Your task to perform on an android device: turn on improve location accuracy Image 0: 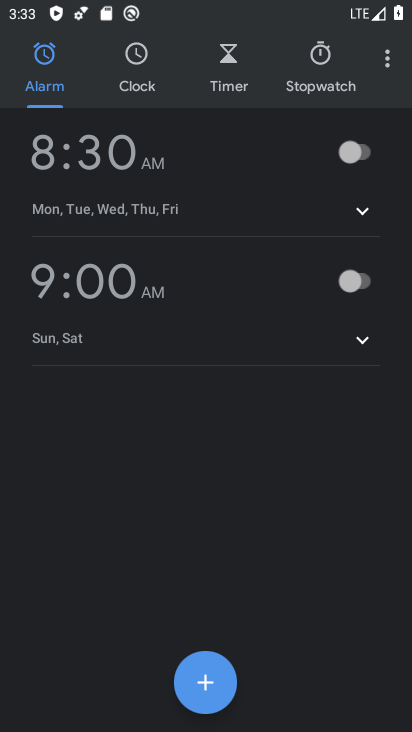
Step 0: press home button
Your task to perform on an android device: turn on improve location accuracy Image 1: 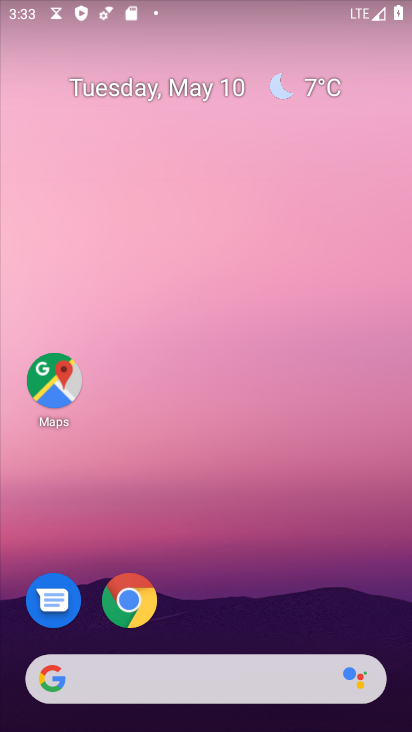
Step 1: drag from (252, 552) to (242, 184)
Your task to perform on an android device: turn on improve location accuracy Image 2: 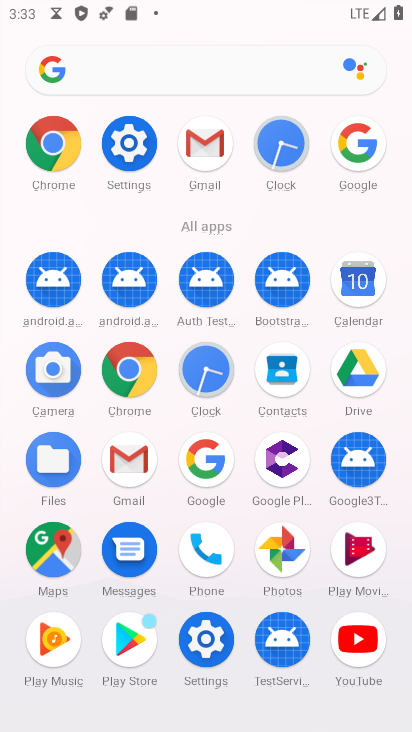
Step 2: click (141, 166)
Your task to perform on an android device: turn on improve location accuracy Image 3: 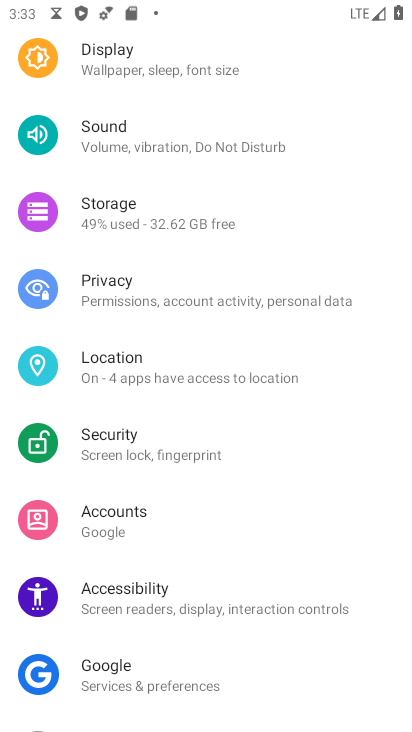
Step 3: drag from (155, 591) to (118, 354)
Your task to perform on an android device: turn on improve location accuracy Image 4: 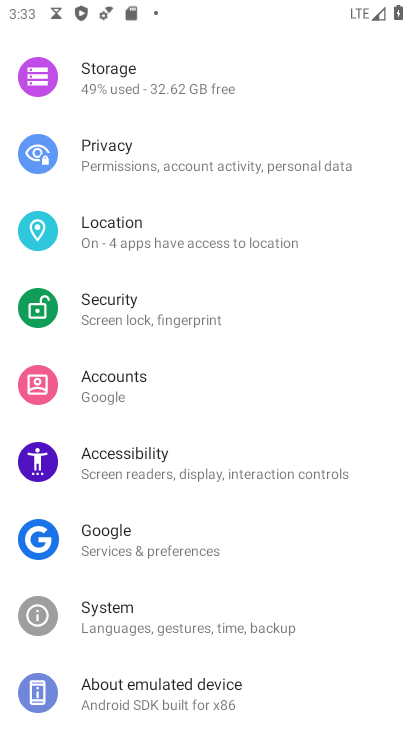
Step 4: drag from (125, 336) to (125, 602)
Your task to perform on an android device: turn on improve location accuracy Image 5: 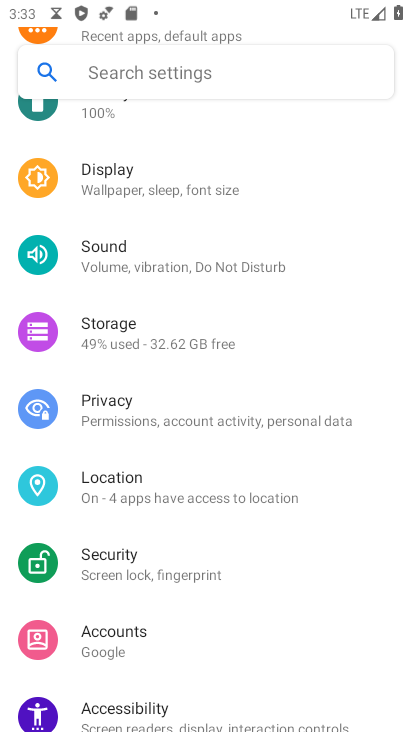
Step 5: click (137, 477)
Your task to perform on an android device: turn on improve location accuracy Image 6: 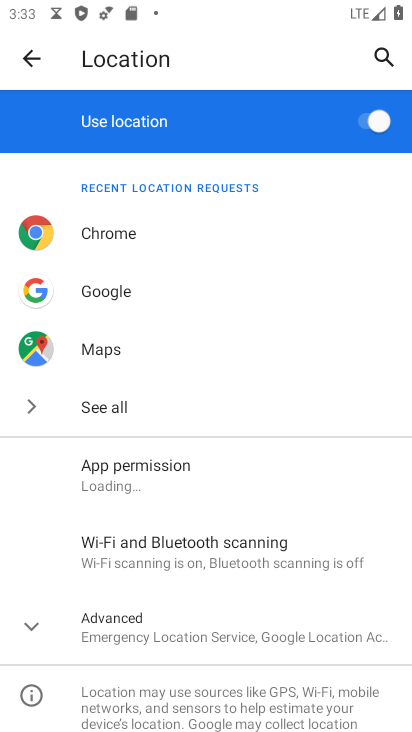
Step 6: drag from (93, 576) to (93, 251)
Your task to perform on an android device: turn on improve location accuracy Image 7: 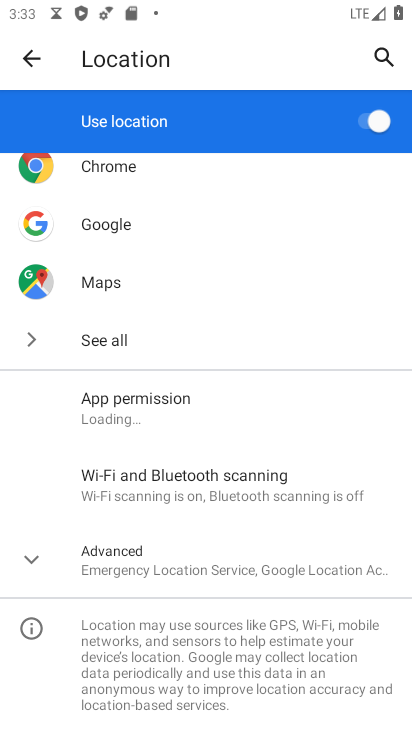
Step 7: drag from (82, 553) to (75, 251)
Your task to perform on an android device: turn on improve location accuracy Image 8: 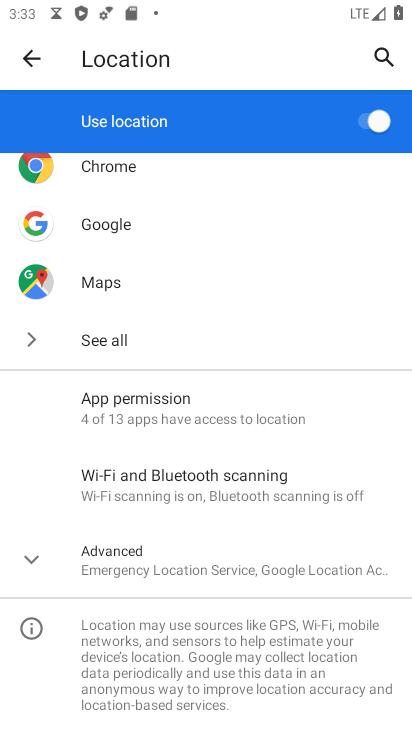
Step 8: drag from (119, 267) to (101, 542)
Your task to perform on an android device: turn on improve location accuracy Image 9: 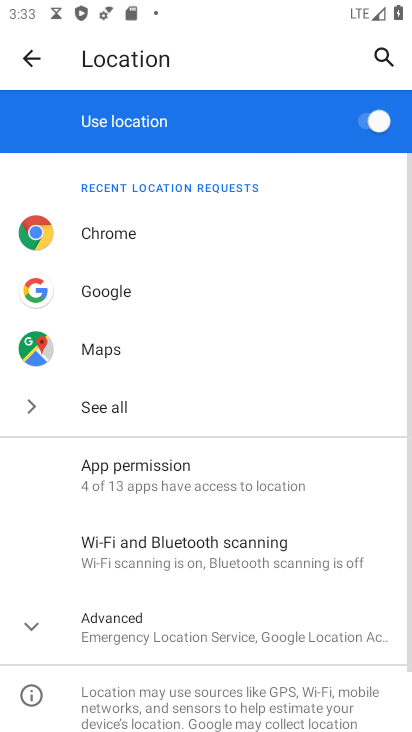
Step 9: drag from (105, 331) to (67, 564)
Your task to perform on an android device: turn on improve location accuracy Image 10: 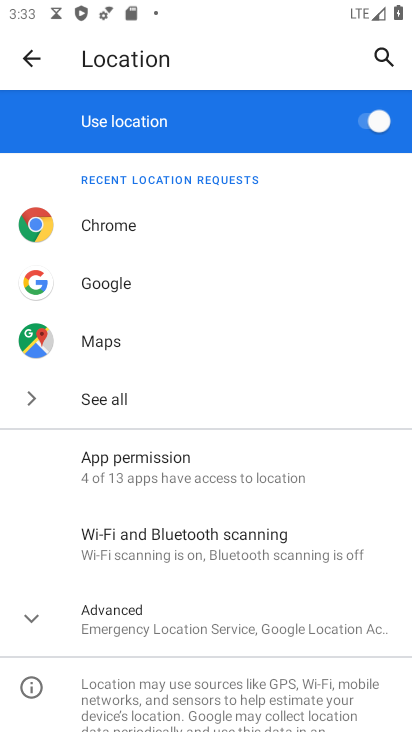
Step 10: click (29, 50)
Your task to perform on an android device: turn on improve location accuracy Image 11: 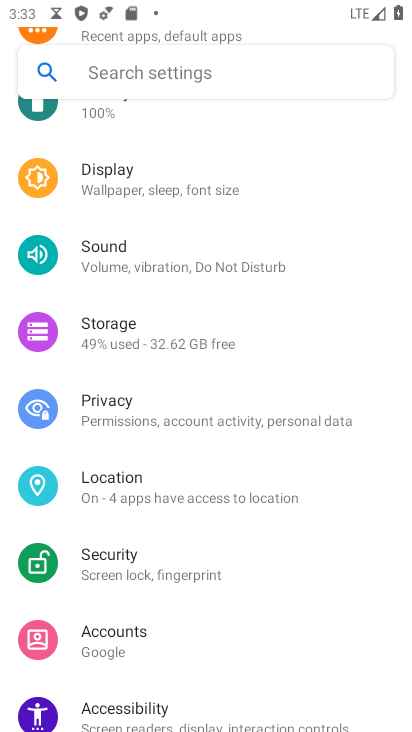
Step 11: task complete